Your task to perform on an android device: Open ESPN.com Image 0: 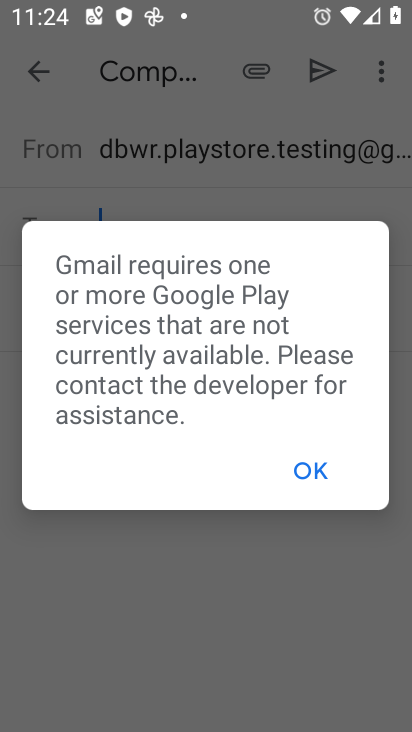
Step 0: press home button
Your task to perform on an android device: Open ESPN.com Image 1: 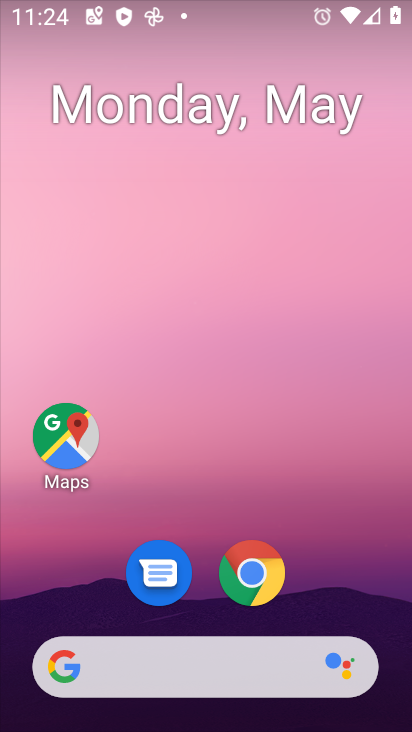
Step 1: click (187, 683)
Your task to perform on an android device: Open ESPN.com Image 2: 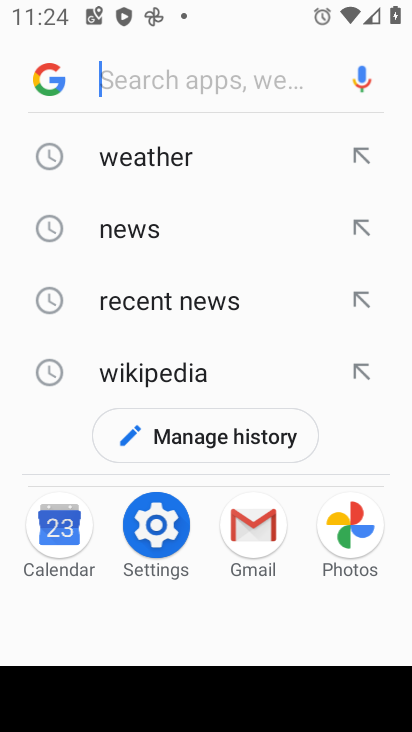
Step 2: type "espn"
Your task to perform on an android device: Open ESPN.com Image 3: 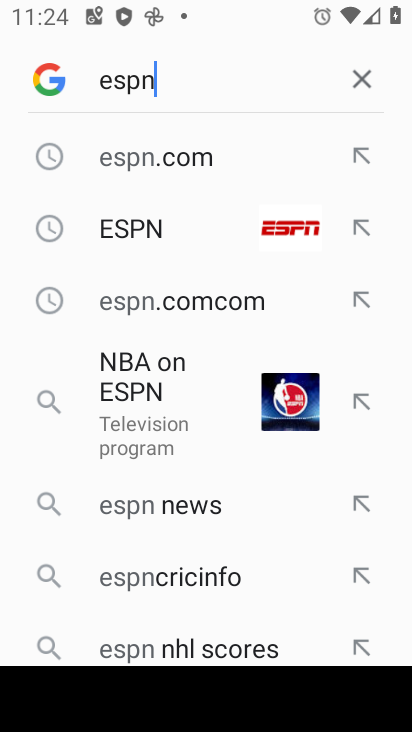
Step 3: click (146, 240)
Your task to perform on an android device: Open ESPN.com Image 4: 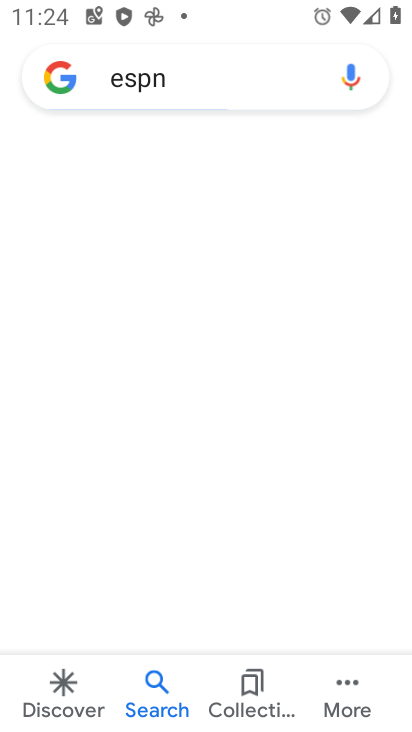
Step 4: task complete